Your task to perform on an android device: Open CNN.com Image 0: 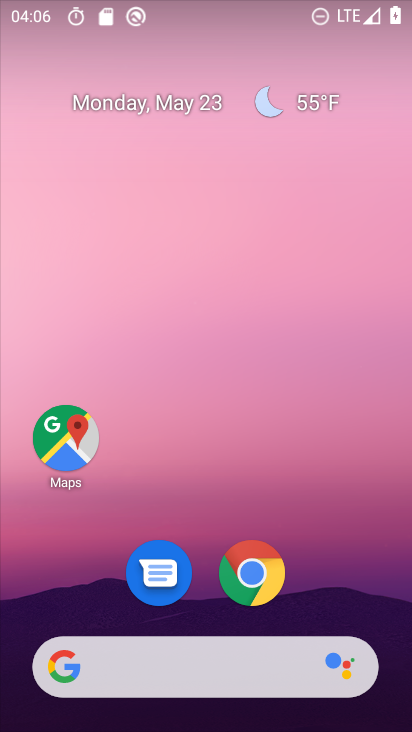
Step 0: click (258, 577)
Your task to perform on an android device: Open CNN.com Image 1: 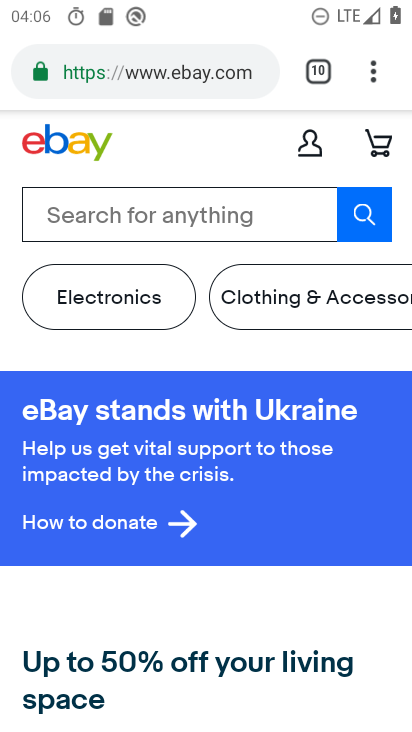
Step 1: click (322, 75)
Your task to perform on an android device: Open CNN.com Image 2: 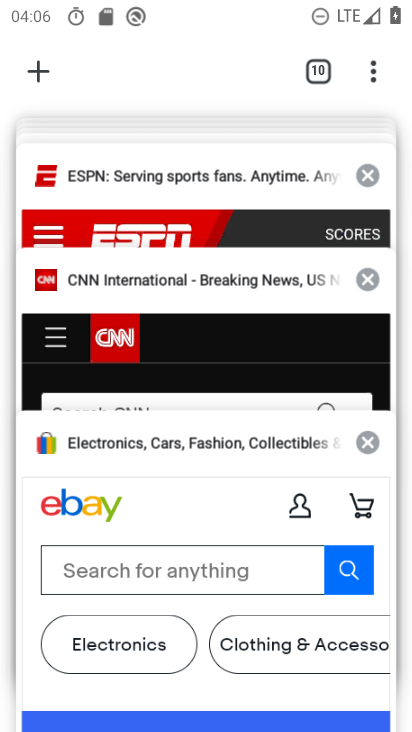
Step 2: click (148, 303)
Your task to perform on an android device: Open CNN.com Image 3: 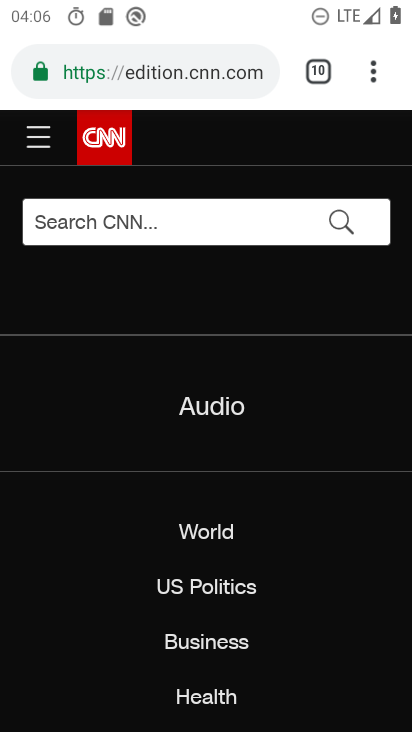
Step 3: task complete